Your task to perform on an android device: turn notification dots on Image 0: 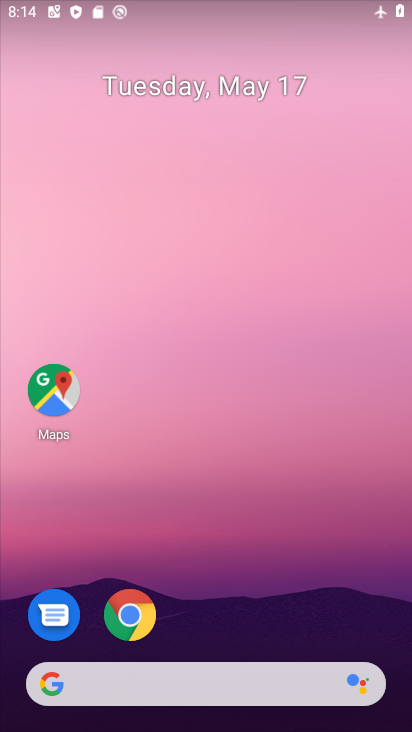
Step 0: drag from (296, 581) to (229, 123)
Your task to perform on an android device: turn notification dots on Image 1: 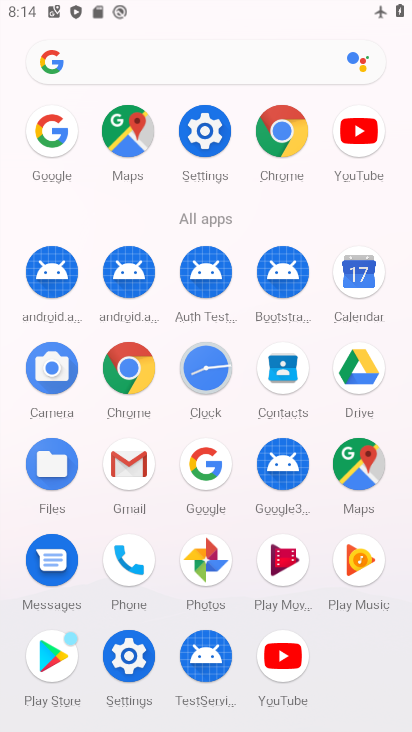
Step 1: click (195, 133)
Your task to perform on an android device: turn notification dots on Image 2: 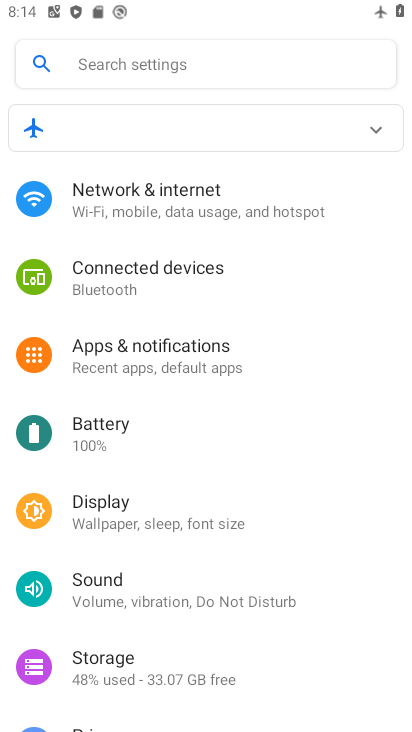
Step 2: click (140, 59)
Your task to perform on an android device: turn notification dots on Image 3: 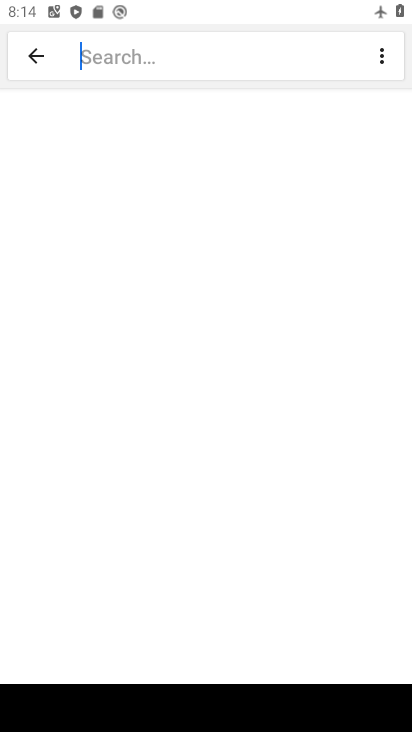
Step 3: type "notification dots"
Your task to perform on an android device: turn notification dots on Image 4: 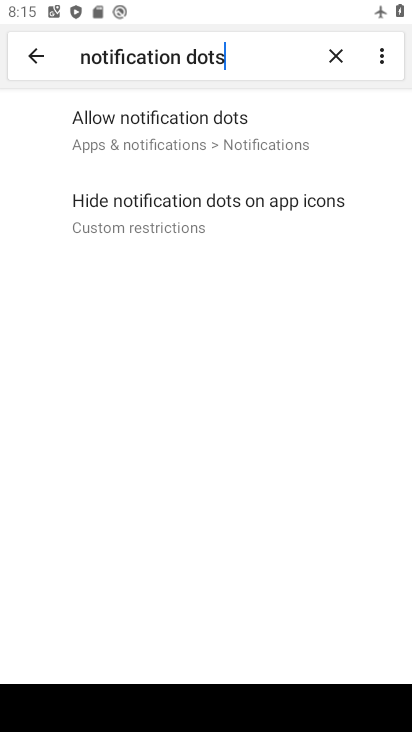
Step 4: click (179, 115)
Your task to perform on an android device: turn notification dots on Image 5: 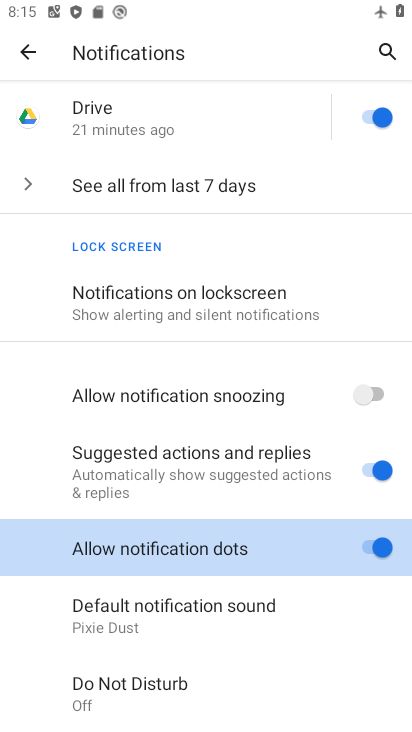
Step 5: task complete